Your task to perform on an android device: toggle sleep mode Image 0: 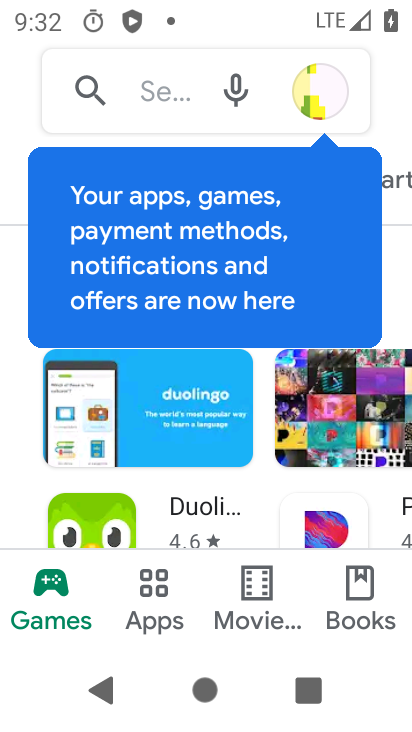
Step 0: press home button
Your task to perform on an android device: toggle sleep mode Image 1: 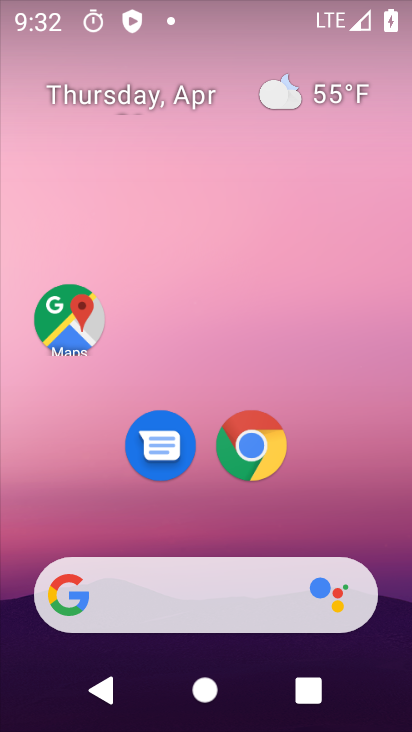
Step 1: drag from (367, 486) to (326, 32)
Your task to perform on an android device: toggle sleep mode Image 2: 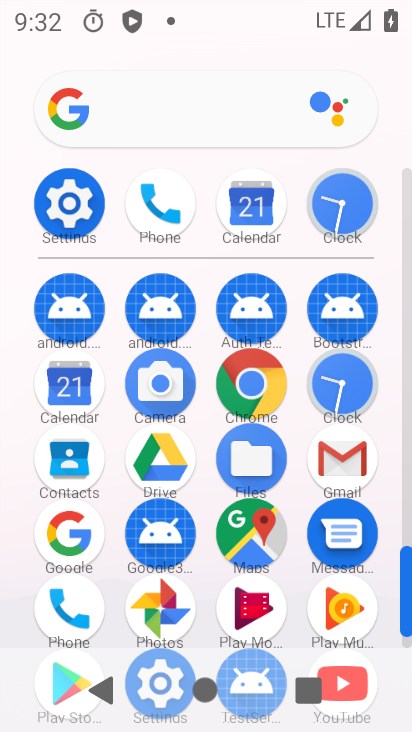
Step 2: click (67, 205)
Your task to perform on an android device: toggle sleep mode Image 3: 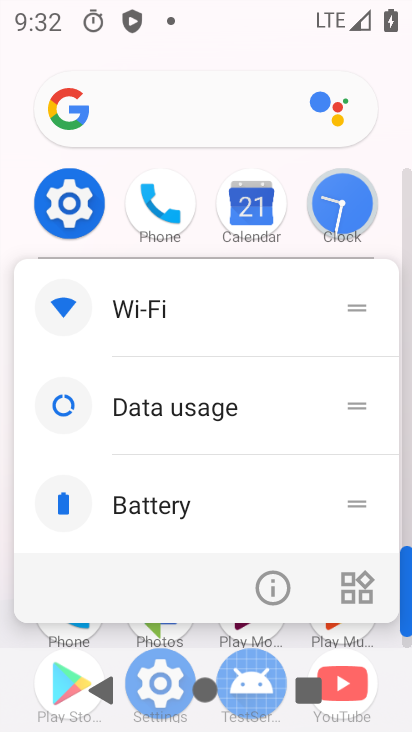
Step 3: click (64, 211)
Your task to perform on an android device: toggle sleep mode Image 4: 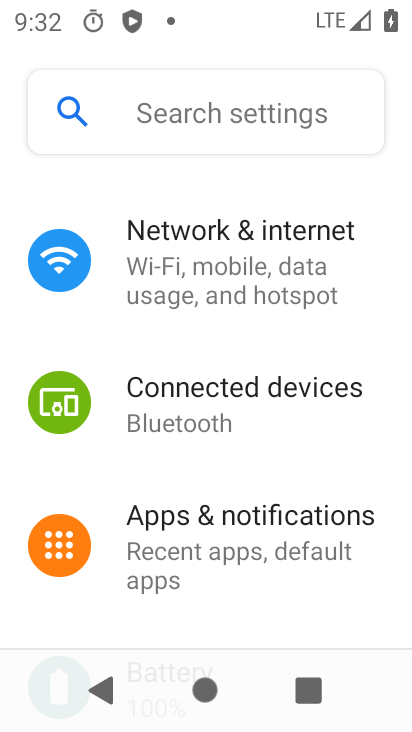
Step 4: drag from (285, 498) to (263, 24)
Your task to perform on an android device: toggle sleep mode Image 5: 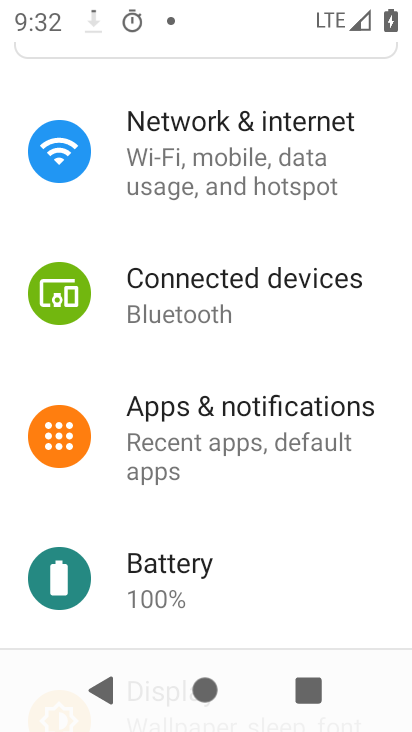
Step 5: drag from (286, 553) to (279, 118)
Your task to perform on an android device: toggle sleep mode Image 6: 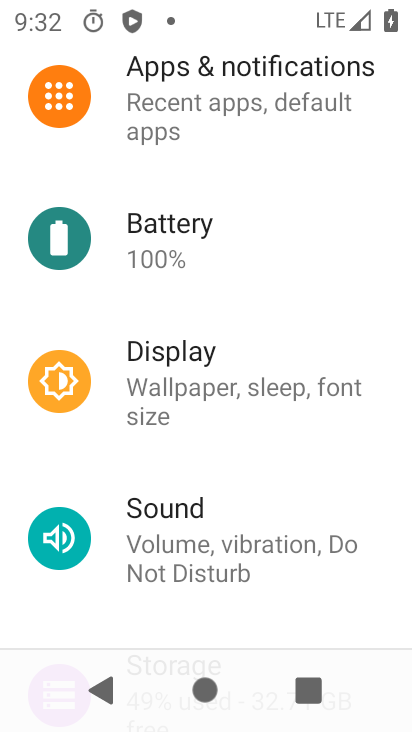
Step 6: click (171, 379)
Your task to perform on an android device: toggle sleep mode Image 7: 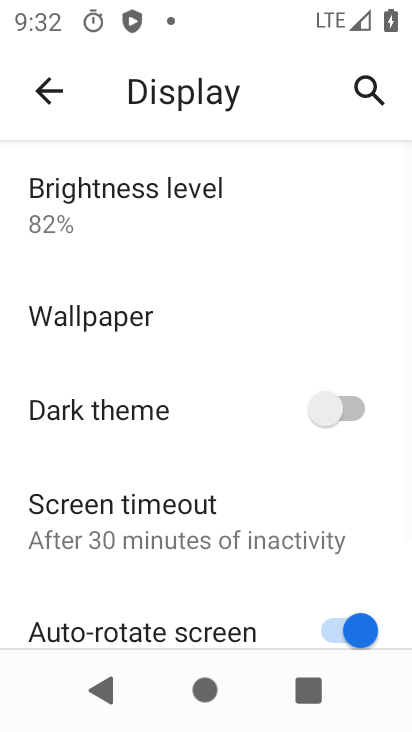
Step 7: drag from (191, 566) to (171, 199)
Your task to perform on an android device: toggle sleep mode Image 8: 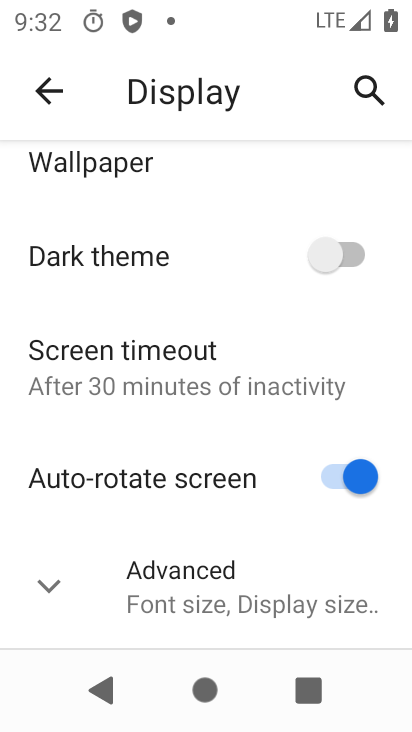
Step 8: click (35, 592)
Your task to perform on an android device: toggle sleep mode Image 9: 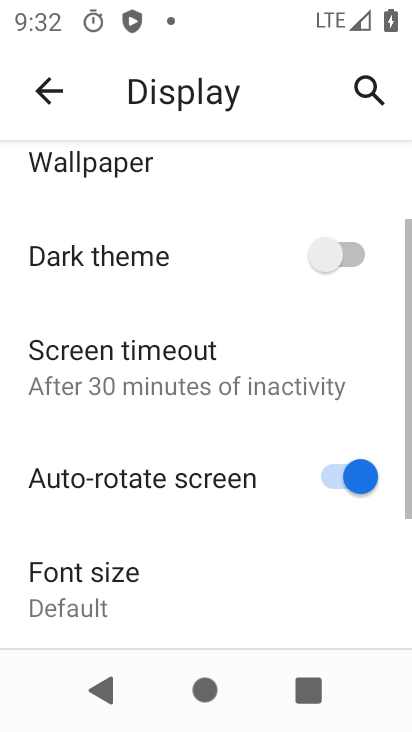
Step 9: task complete